Your task to perform on an android device: Go to ESPN.com Image 0: 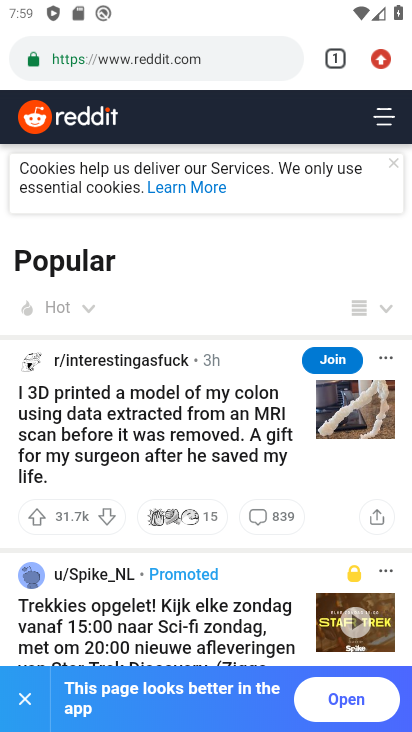
Step 0: press home button
Your task to perform on an android device: Go to ESPN.com Image 1: 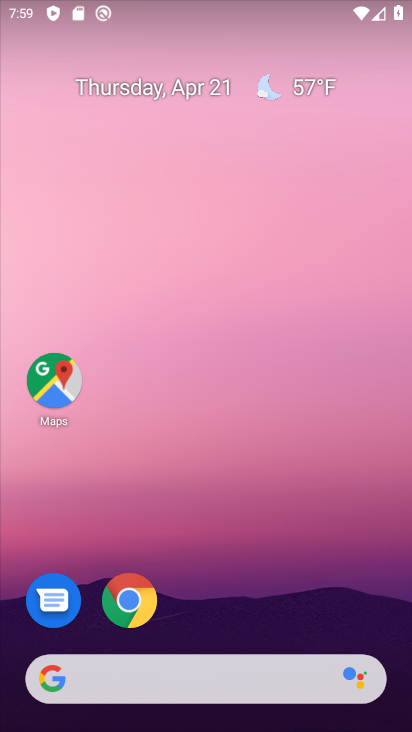
Step 1: click (134, 593)
Your task to perform on an android device: Go to ESPN.com Image 2: 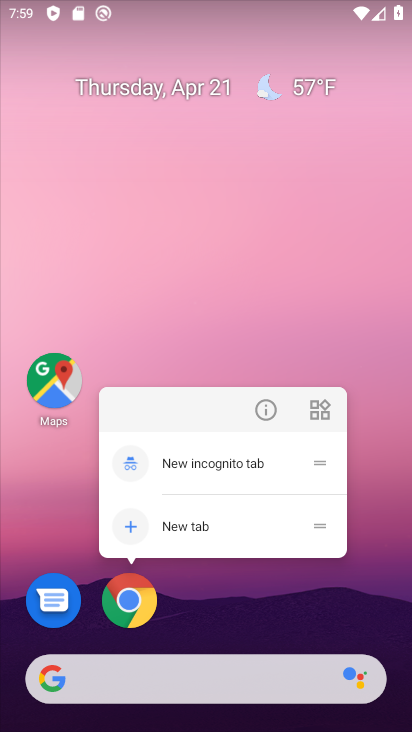
Step 2: click (126, 599)
Your task to perform on an android device: Go to ESPN.com Image 3: 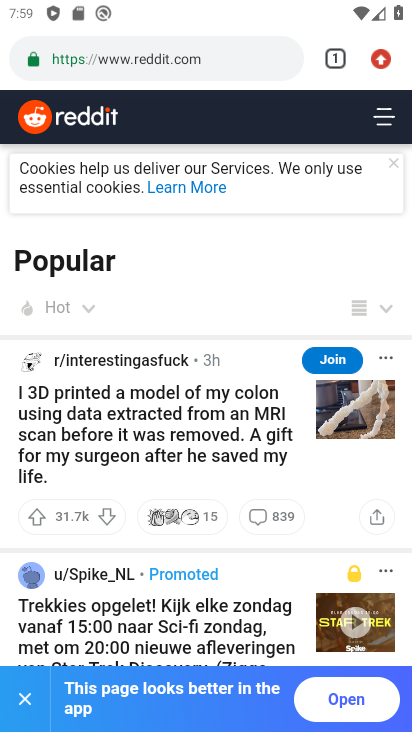
Step 3: click (164, 50)
Your task to perform on an android device: Go to ESPN.com Image 4: 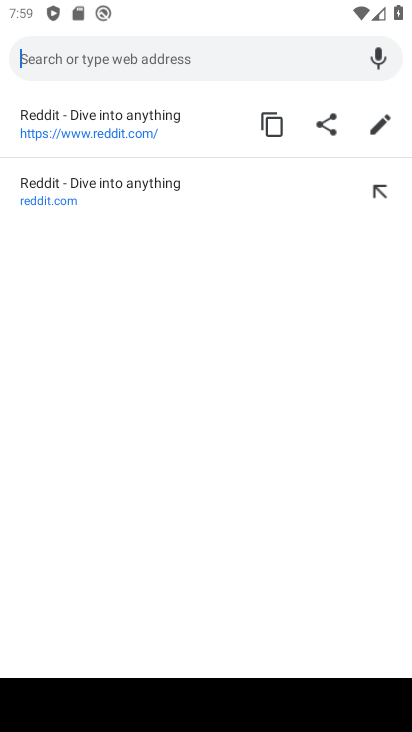
Step 4: type "espn.com"
Your task to perform on an android device: Go to ESPN.com Image 5: 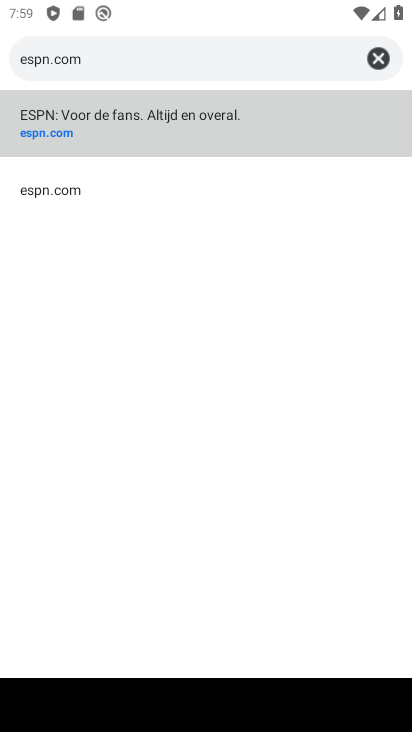
Step 5: click (143, 153)
Your task to perform on an android device: Go to ESPN.com Image 6: 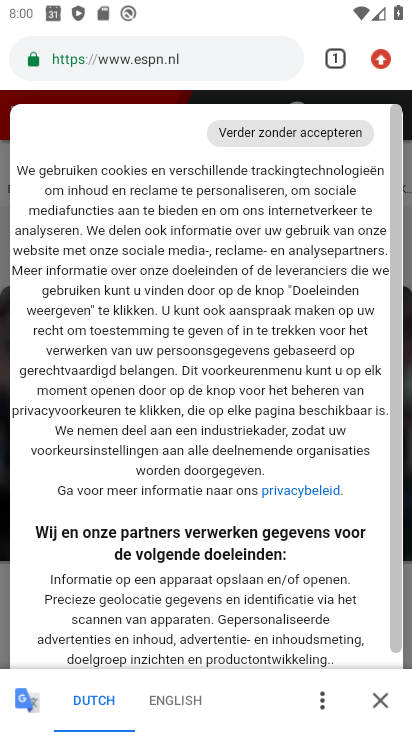
Step 6: task complete